Your task to perform on an android device: clear history in the chrome app Image 0: 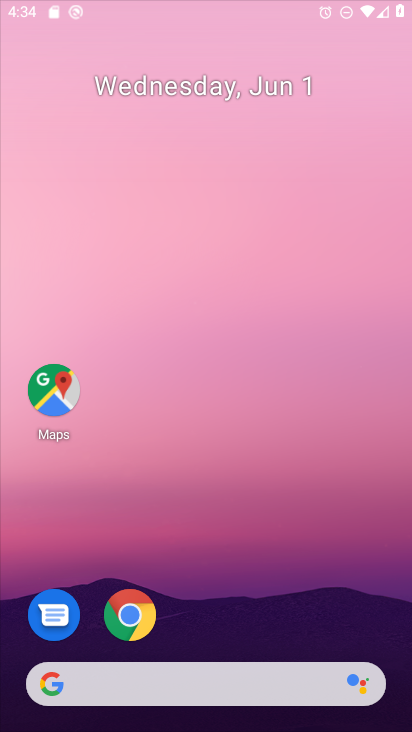
Step 0: press home button
Your task to perform on an android device: clear history in the chrome app Image 1: 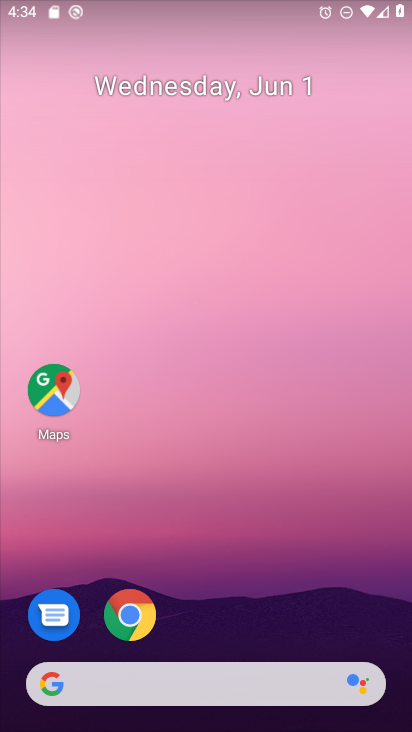
Step 1: click (132, 607)
Your task to perform on an android device: clear history in the chrome app Image 2: 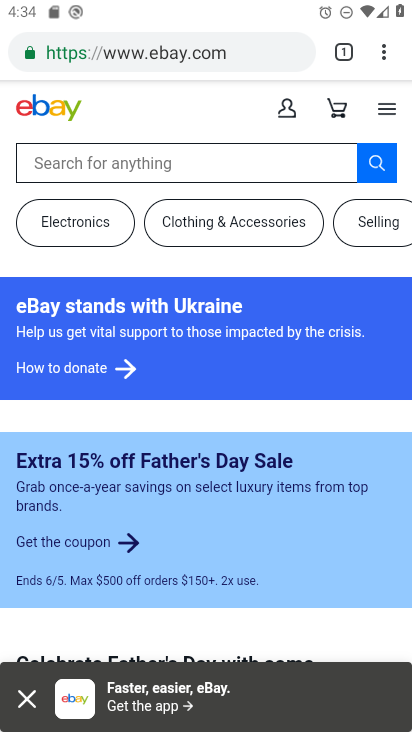
Step 2: click (389, 49)
Your task to perform on an android device: clear history in the chrome app Image 3: 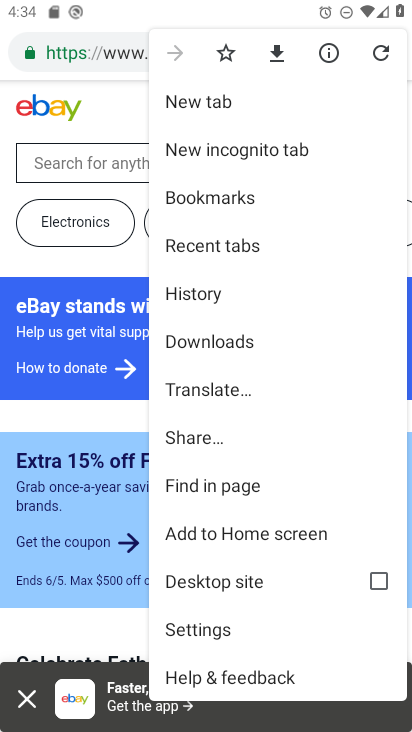
Step 3: click (234, 289)
Your task to perform on an android device: clear history in the chrome app Image 4: 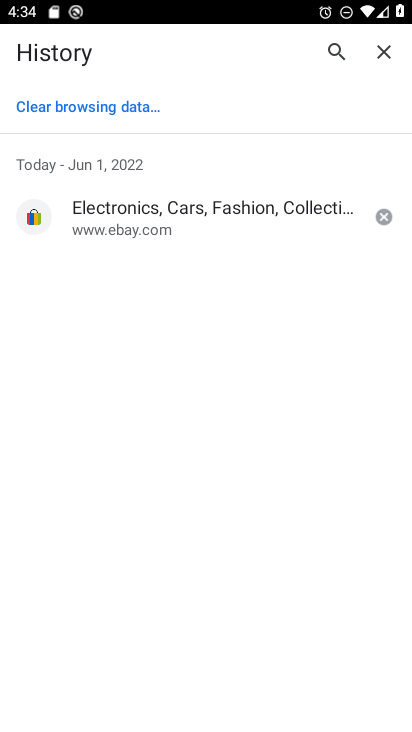
Step 4: click (102, 104)
Your task to perform on an android device: clear history in the chrome app Image 5: 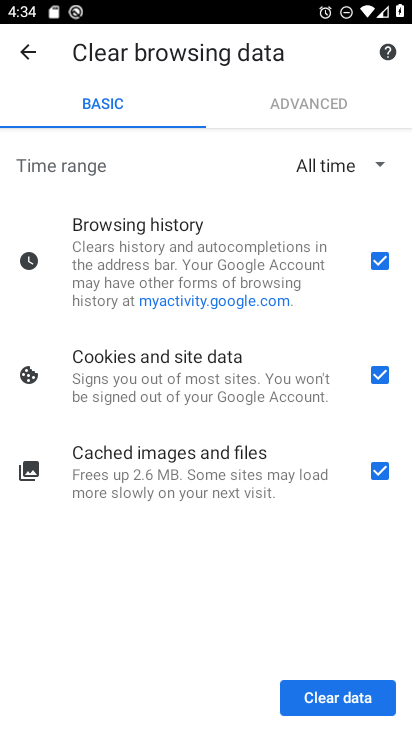
Step 5: click (339, 701)
Your task to perform on an android device: clear history in the chrome app Image 6: 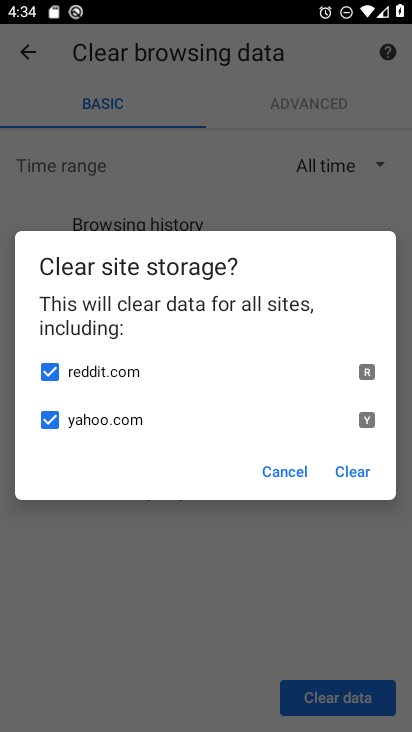
Step 6: click (350, 469)
Your task to perform on an android device: clear history in the chrome app Image 7: 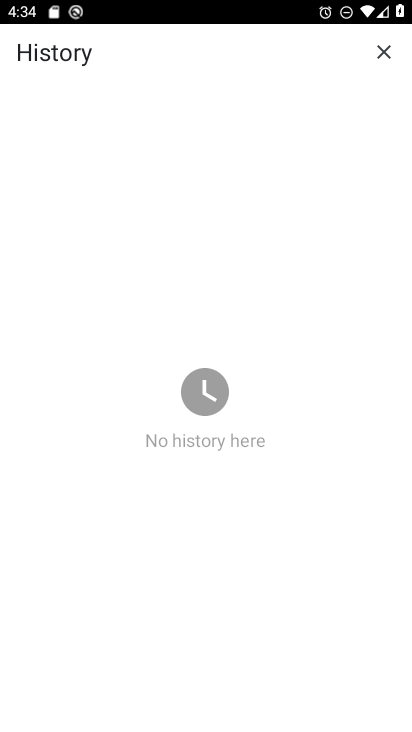
Step 7: task complete